Your task to perform on an android device: See recent photos Image 0: 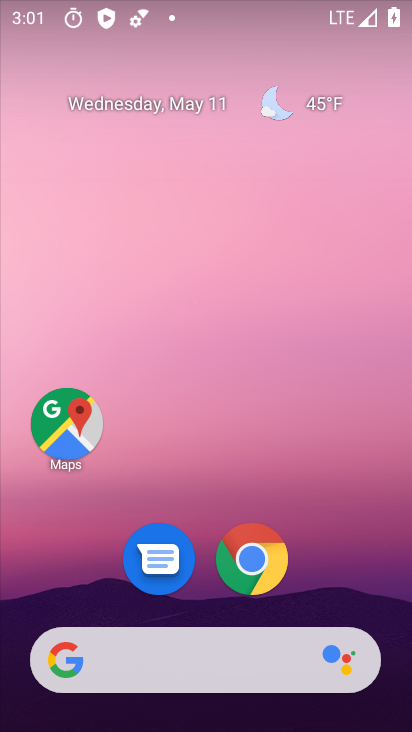
Step 0: drag from (316, 516) to (212, 143)
Your task to perform on an android device: See recent photos Image 1: 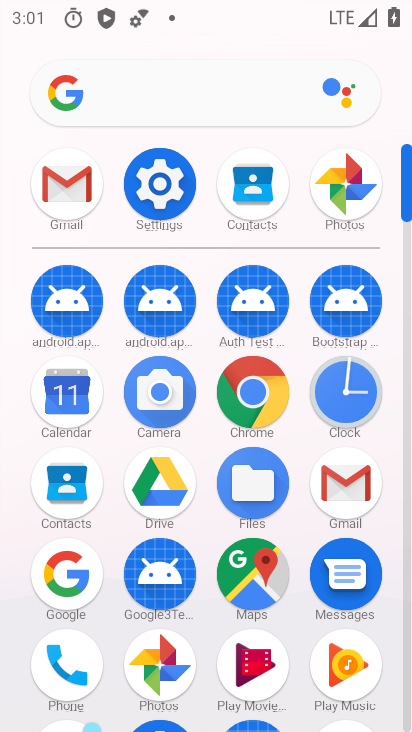
Step 1: click (352, 192)
Your task to perform on an android device: See recent photos Image 2: 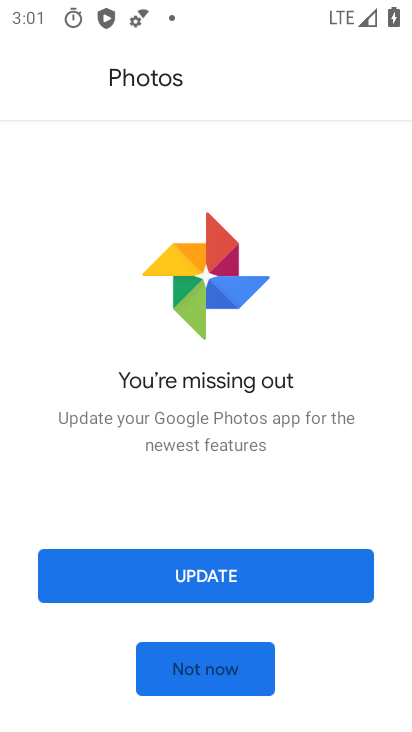
Step 2: click (240, 571)
Your task to perform on an android device: See recent photos Image 3: 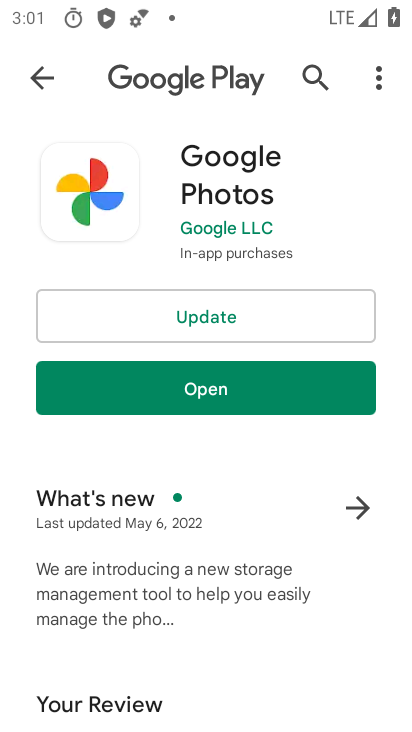
Step 3: click (213, 319)
Your task to perform on an android device: See recent photos Image 4: 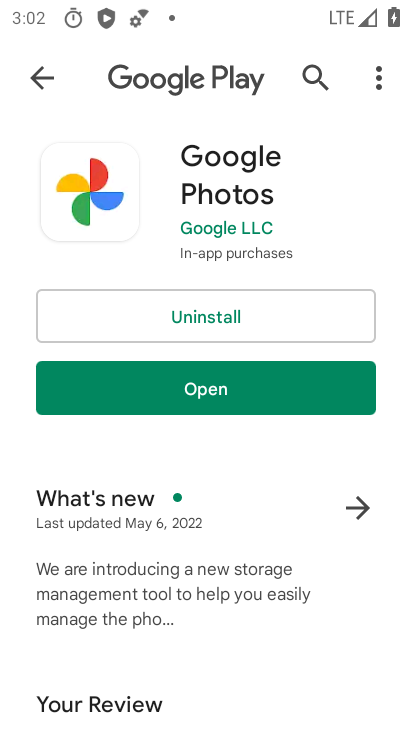
Step 4: click (257, 392)
Your task to perform on an android device: See recent photos Image 5: 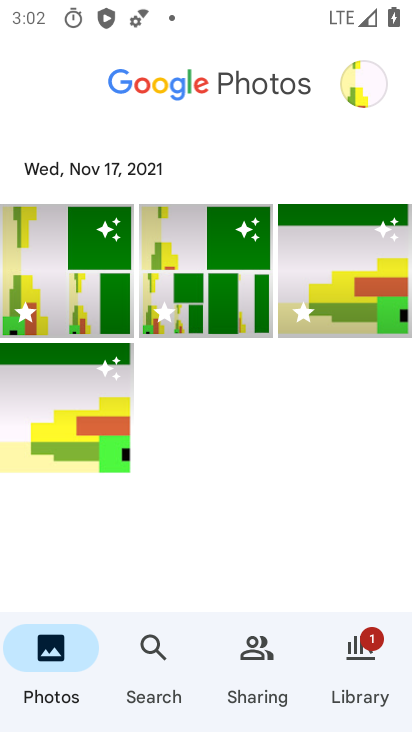
Step 5: task complete